Your task to perform on an android device: Go to Wikipedia Image 0: 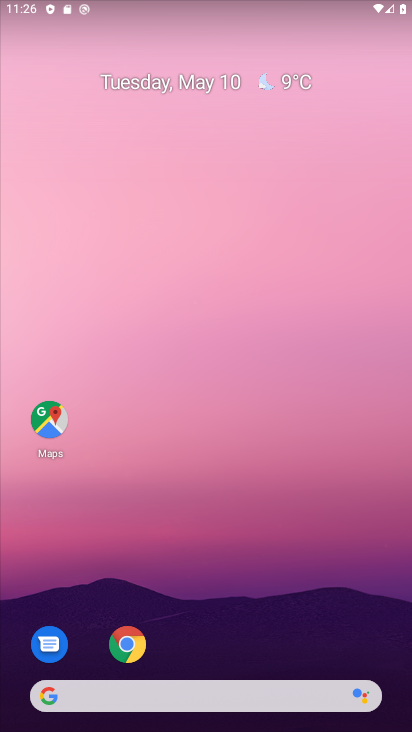
Step 0: click (129, 646)
Your task to perform on an android device: Go to Wikipedia Image 1: 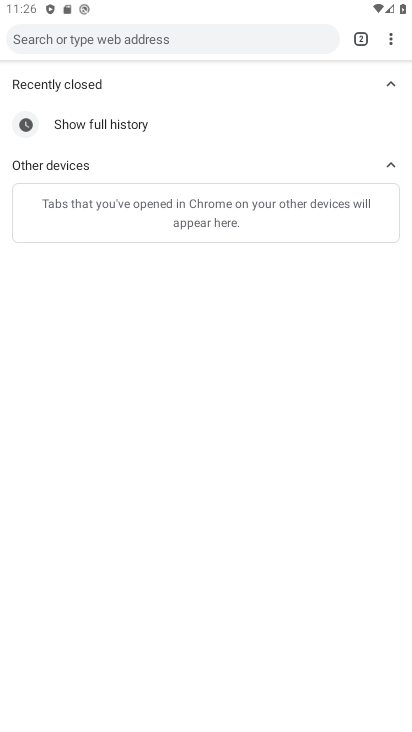
Step 1: click (278, 38)
Your task to perform on an android device: Go to Wikipedia Image 2: 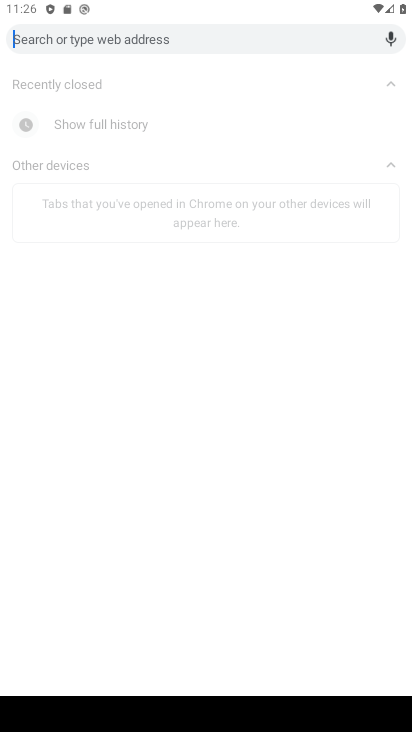
Step 2: type "wikipedia"
Your task to perform on an android device: Go to Wikipedia Image 3: 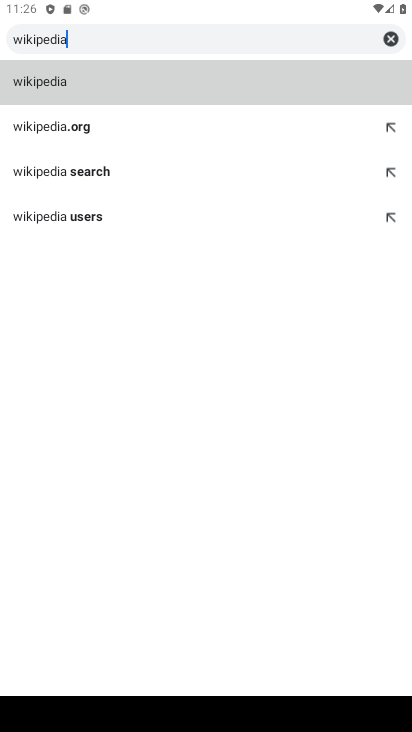
Step 3: click (98, 174)
Your task to perform on an android device: Go to Wikipedia Image 4: 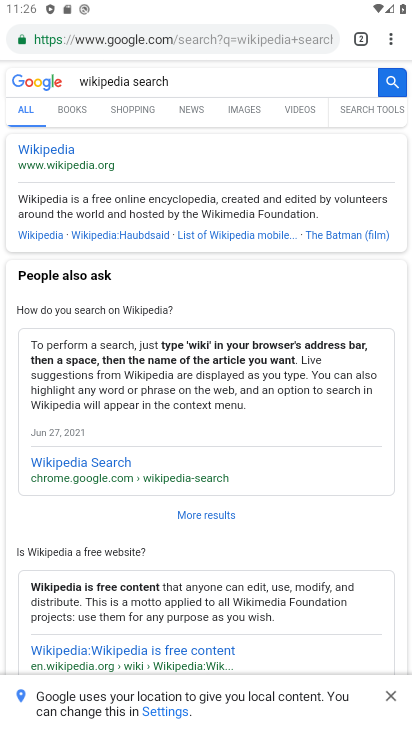
Step 4: task complete